Your task to perform on an android device: Search for sushi restaurants on Maps Image 0: 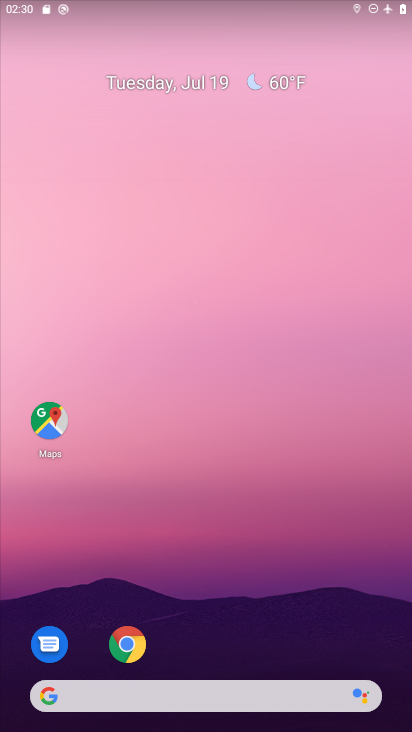
Step 0: click (49, 417)
Your task to perform on an android device: Search for sushi restaurants on Maps Image 1: 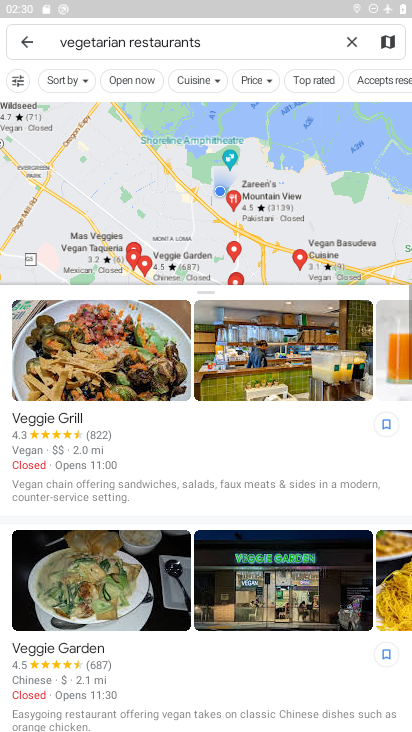
Step 1: click (350, 36)
Your task to perform on an android device: Search for sushi restaurants on Maps Image 2: 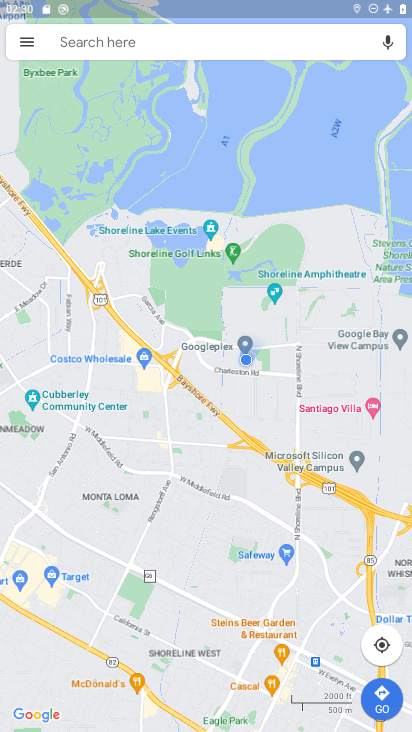
Step 2: click (206, 44)
Your task to perform on an android device: Search for sushi restaurants on Maps Image 3: 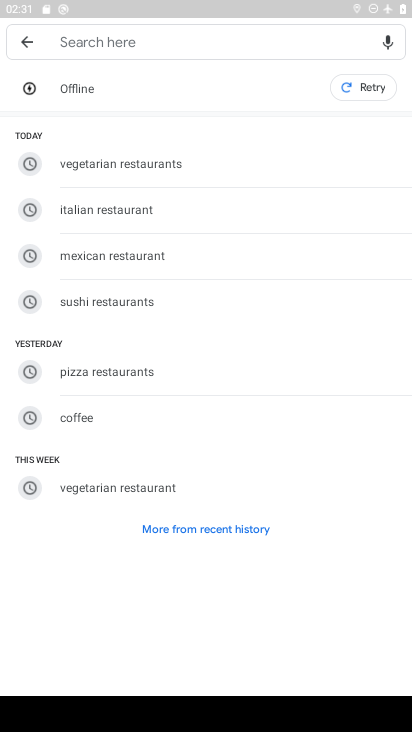
Step 3: click (85, 310)
Your task to perform on an android device: Search for sushi restaurants on Maps Image 4: 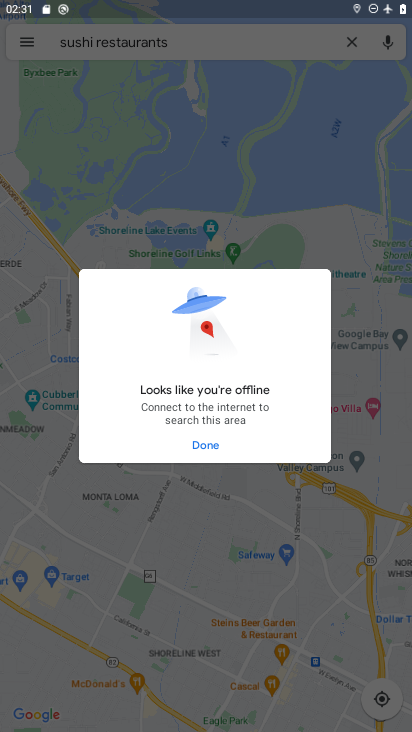
Step 4: task complete